Your task to perform on an android device: Open the calendar app, open the side menu, and click the "Day" option Image 0: 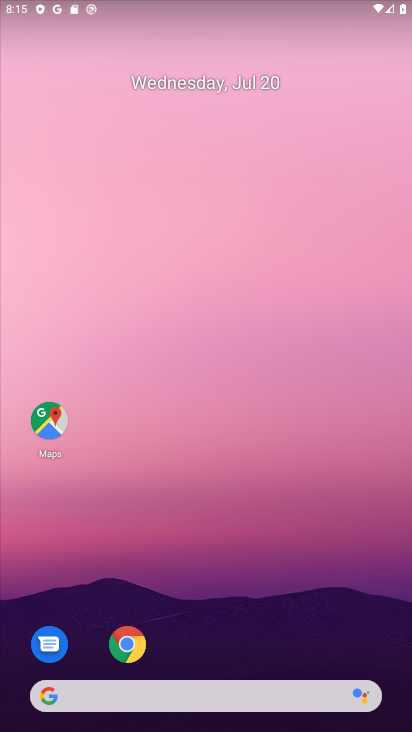
Step 0: drag from (312, 640) to (312, 505)
Your task to perform on an android device: Open the calendar app, open the side menu, and click the "Day" option Image 1: 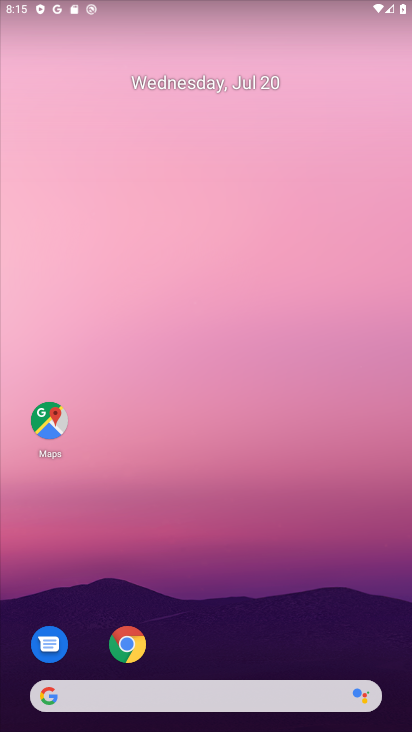
Step 1: drag from (299, 596) to (306, 220)
Your task to perform on an android device: Open the calendar app, open the side menu, and click the "Day" option Image 2: 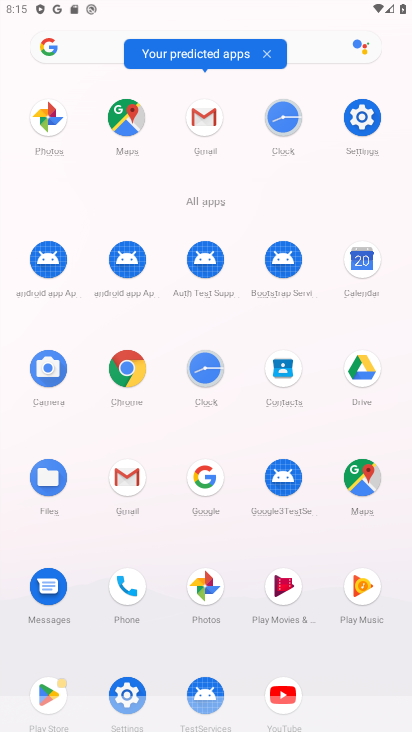
Step 2: click (370, 253)
Your task to perform on an android device: Open the calendar app, open the side menu, and click the "Day" option Image 3: 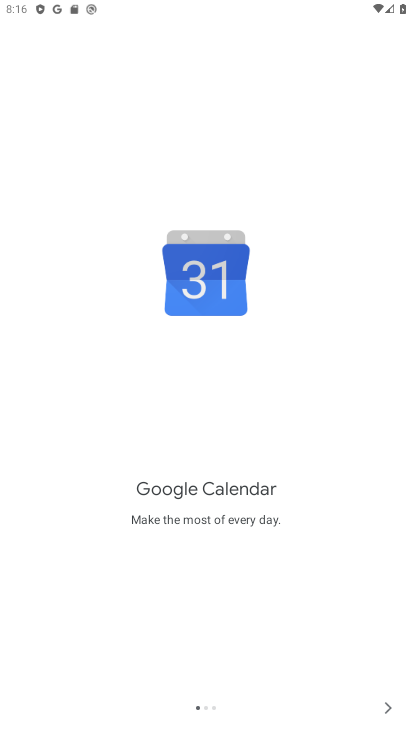
Step 3: click (393, 710)
Your task to perform on an android device: Open the calendar app, open the side menu, and click the "Day" option Image 4: 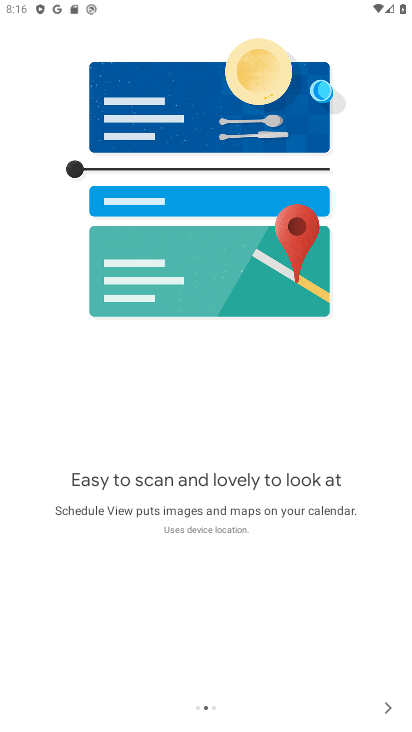
Step 4: click (393, 710)
Your task to perform on an android device: Open the calendar app, open the side menu, and click the "Day" option Image 5: 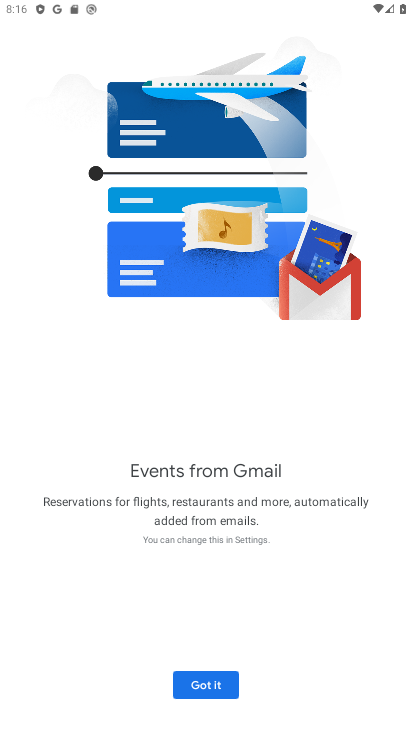
Step 5: click (213, 686)
Your task to perform on an android device: Open the calendar app, open the side menu, and click the "Day" option Image 6: 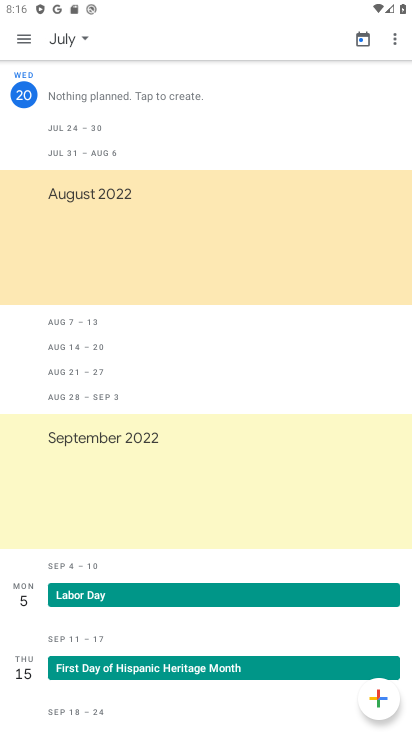
Step 6: click (30, 42)
Your task to perform on an android device: Open the calendar app, open the side menu, and click the "Day" option Image 7: 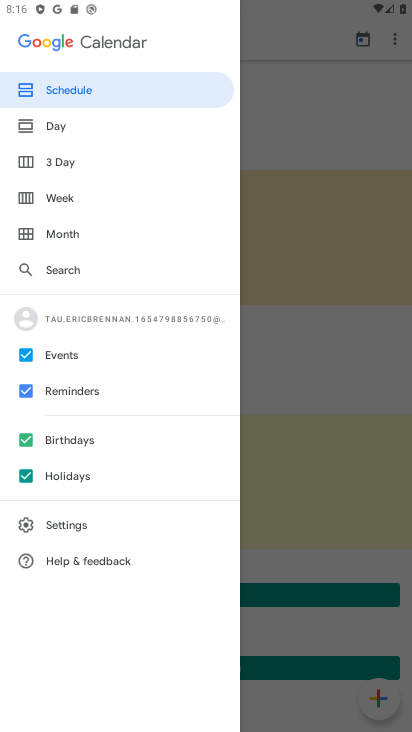
Step 7: click (83, 123)
Your task to perform on an android device: Open the calendar app, open the side menu, and click the "Day" option Image 8: 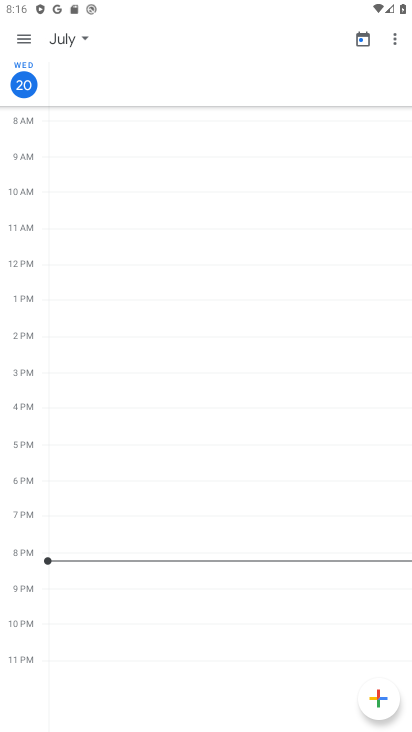
Step 8: task complete